Your task to perform on an android device: move an email to a new category in the gmail app Image 0: 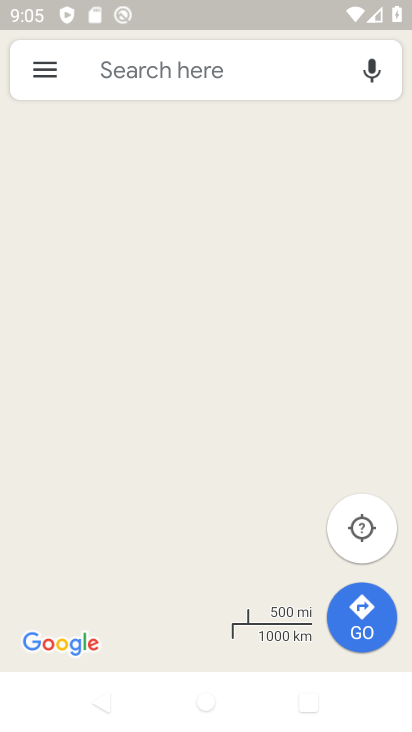
Step 0: press home button
Your task to perform on an android device: move an email to a new category in the gmail app Image 1: 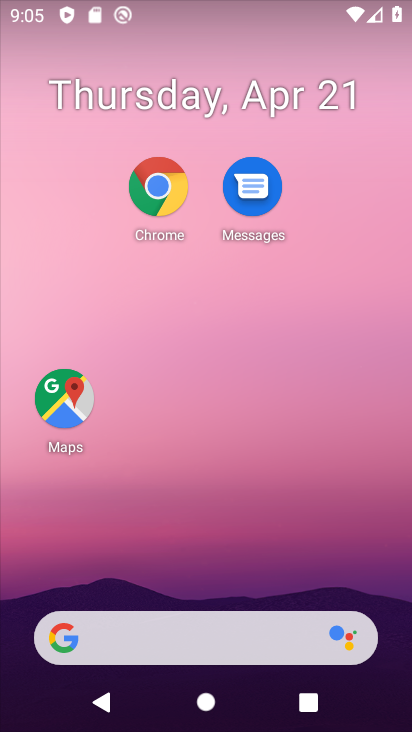
Step 1: drag from (197, 481) to (216, 1)
Your task to perform on an android device: move an email to a new category in the gmail app Image 2: 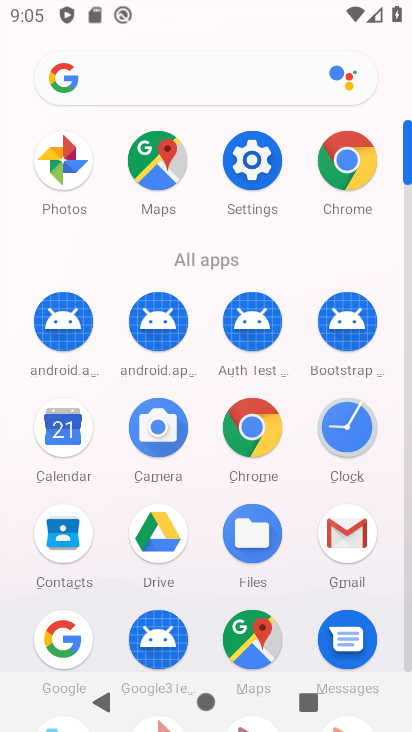
Step 2: click (345, 523)
Your task to perform on an android device: move an email to a new category in the gmail app Image 3: 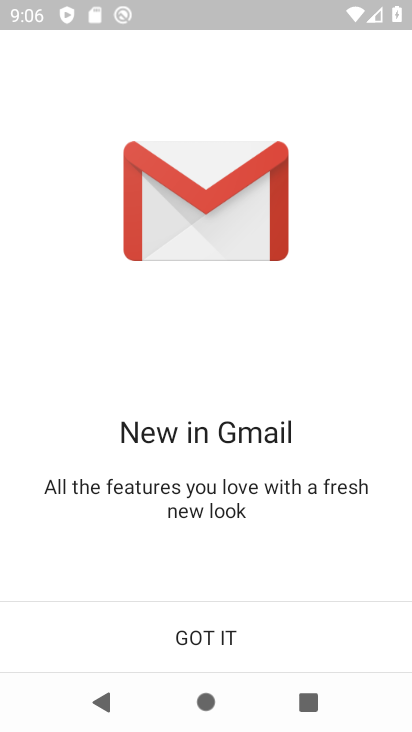
Step 3: click (191, 621)
Your task to perform on an android device: move an email to a new category in the gmail app Image 4: 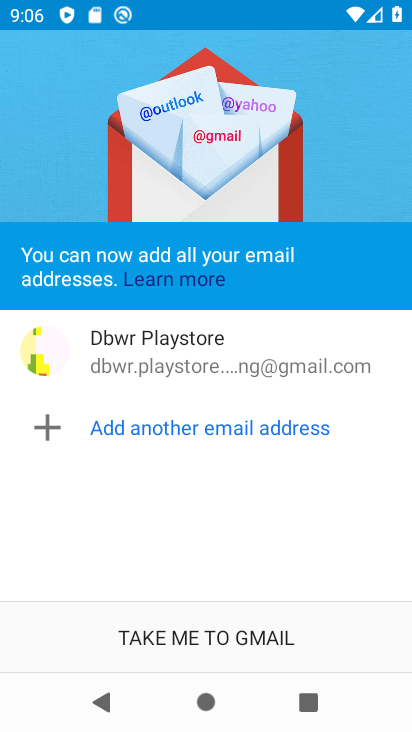
Step 4: click (195, 640)
Your task to perform on an android device: move an email to a new category in the gmail app Image 5: 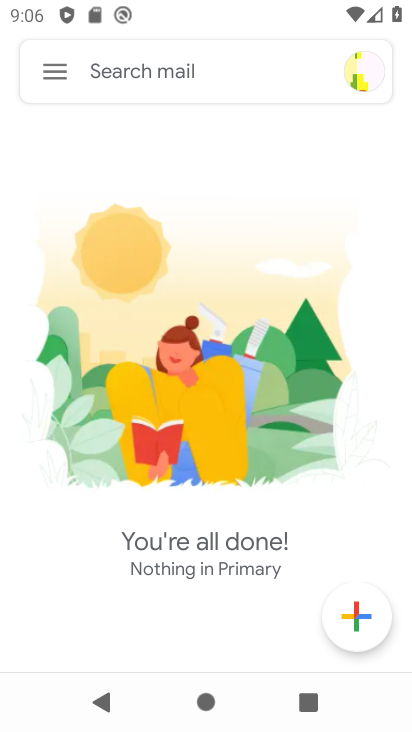
Step 5: task complete